Your task to perform on an android device: open sync settings in chrome Image 0: 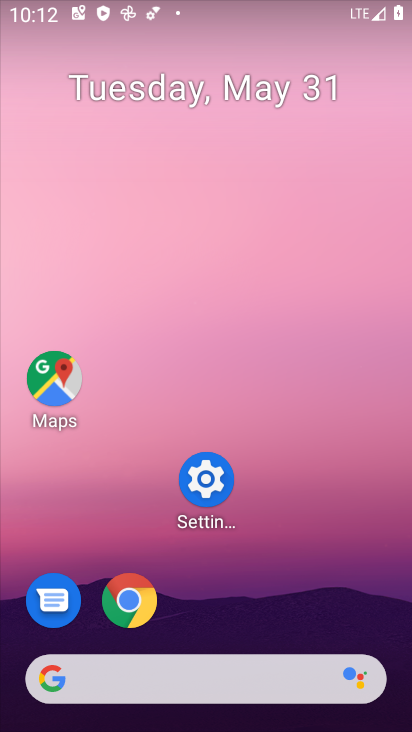
Step 0: click (118, 602)
Your task to perform on an android device: open sync settings in chrome Image 1: 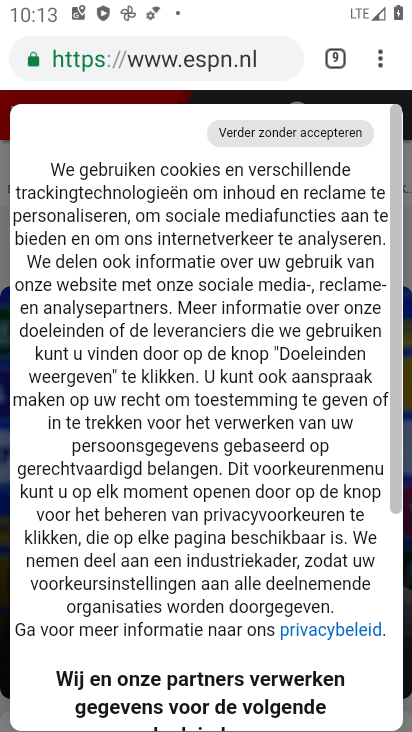
Step 1: click (382, 58)
Your task to perform on an android device: open sync settings in chrome Image 2: 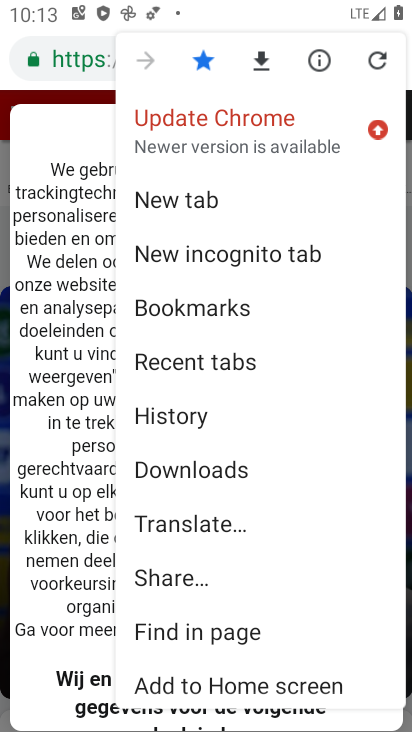
Step 2: drag from (215, 633) to (246, 481)
Your task to perform on an android device: open sync settings in chrome Image 3: 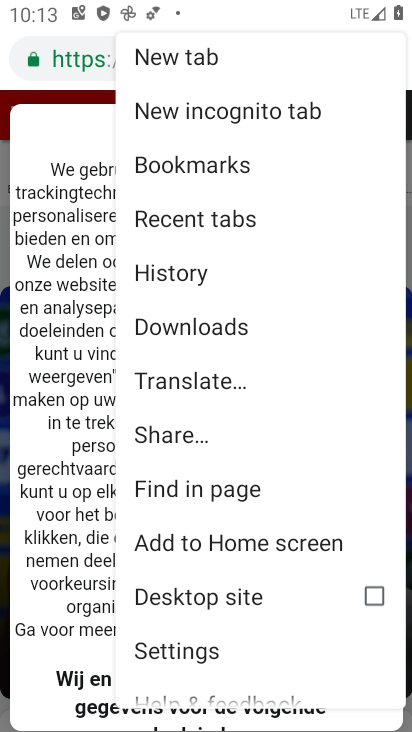
Step 3: click (175, 646)
Your task to perform on an android device: open sync settings in chrome Image 4: 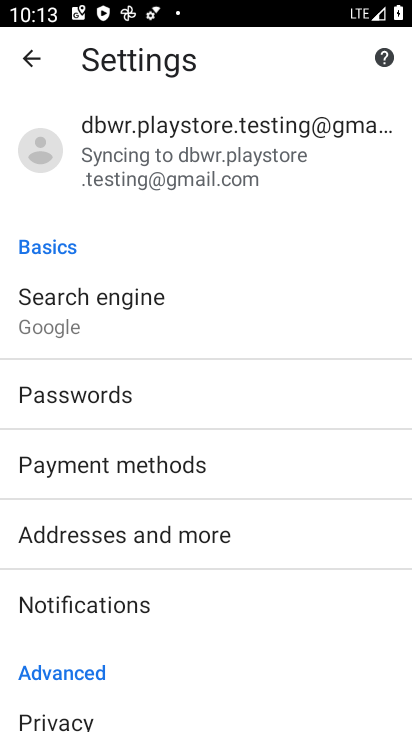
Step 4: drag from (150, 598) to (160, 385)
Your task to perform on an android device: open sync settings in chrome Image 5: 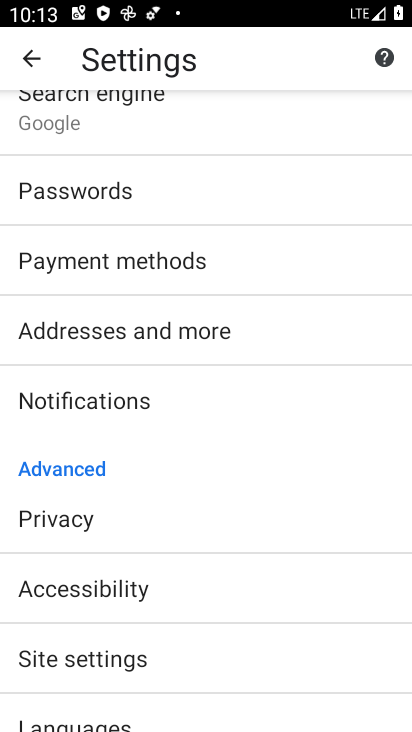
Step 5: click (92, 657)
Your task to perform on an android device: open sync settings in chrome Image 6: 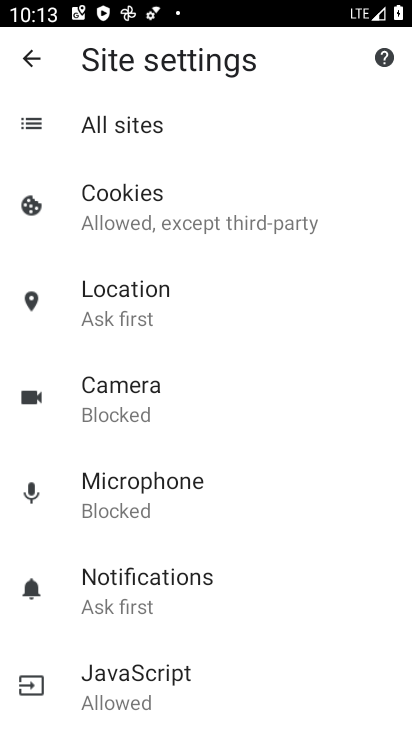
Step 6: drag from (187, 681) to (206, 503)
Your task to perform on an android device: open sync settings in chrome Image 7: 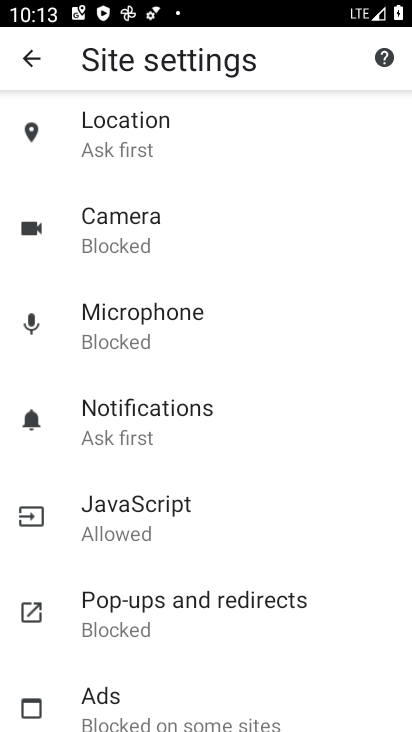
Step 7: drag from (148, 696) to (182, 567)
Your task to perform on an android device: open sync settings in chrome Image 8: 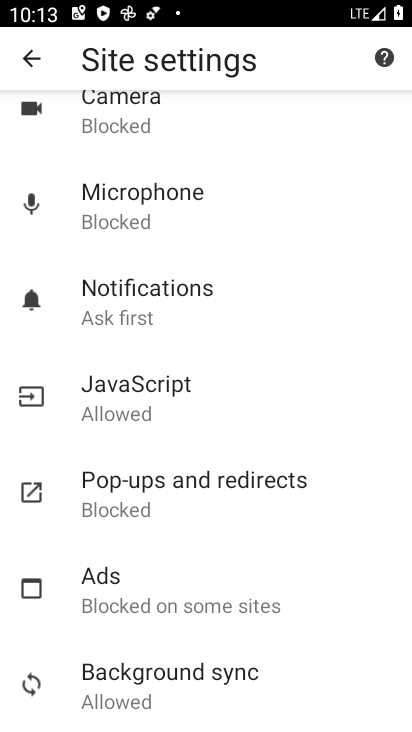
Step 8: click (155, 674)
Your task to perform on an android device: open sync settings in chrome Image 9: 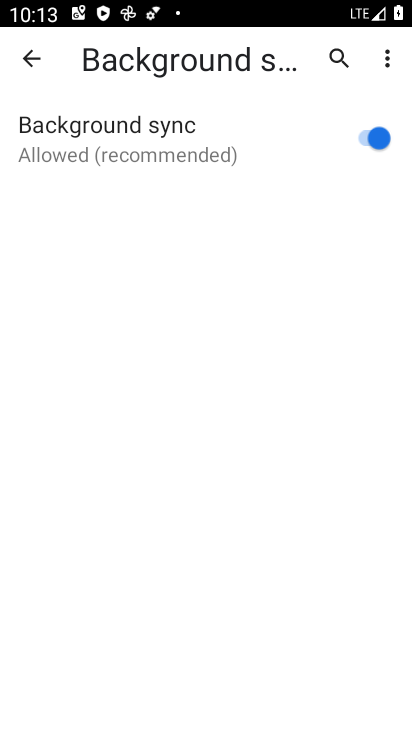
Step 9: task complete